Your task to perform on an android device: find snoozed emails in the gmail app Image 0: 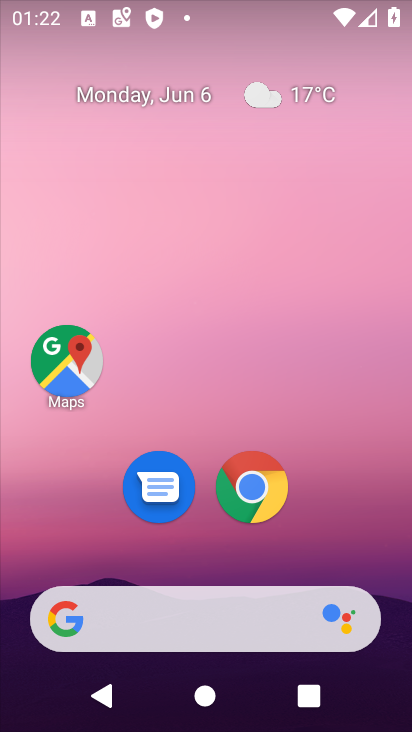
Step 0: drag from (399, 623) to (334, 57)
Your task to perform on an android device: find snoozed emails in the gmail app Image 1: 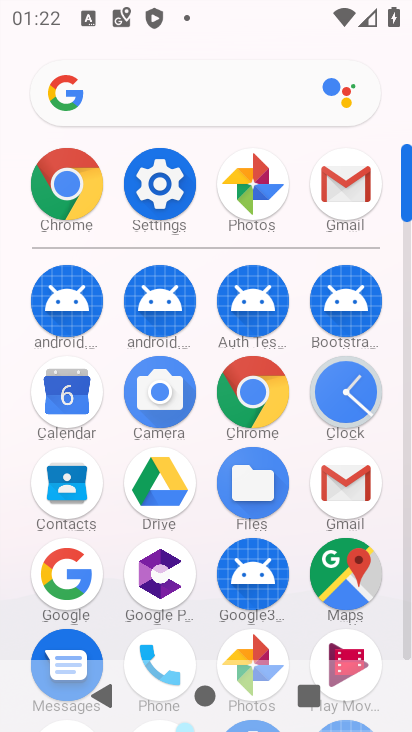
Step 1: click (408, 638)
Your task to perform on an android device: find snoozed emails in the gmail app Image 2: 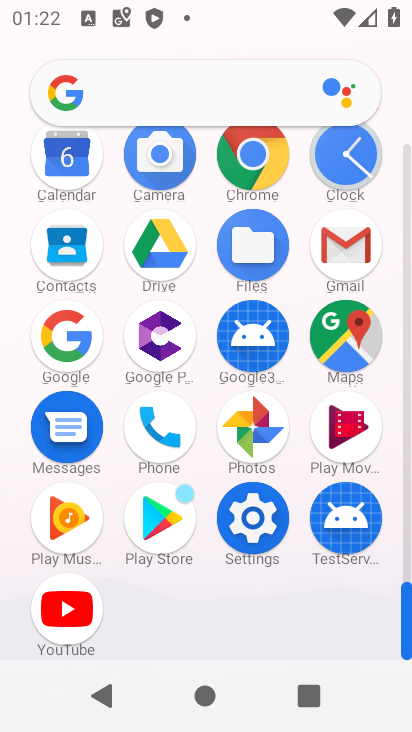
Step 2: click (341, 247)
Your task to perform on an android device: find snoozed emails in the gmail app Image 3: 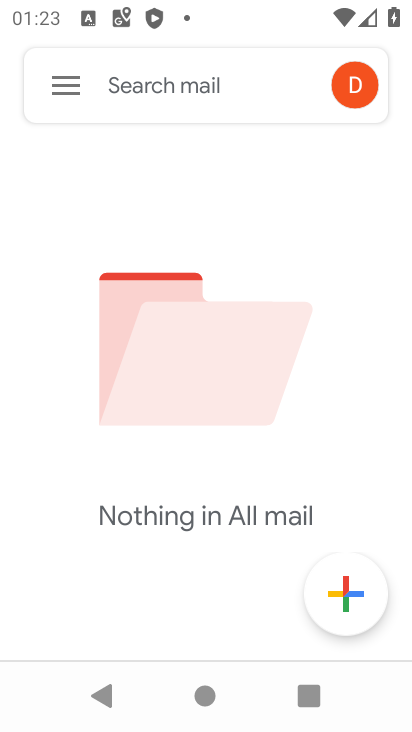
Step 3: click (60, 94)
Your task to perform on an android device: find snoozed emails in the gmail app Image 4: 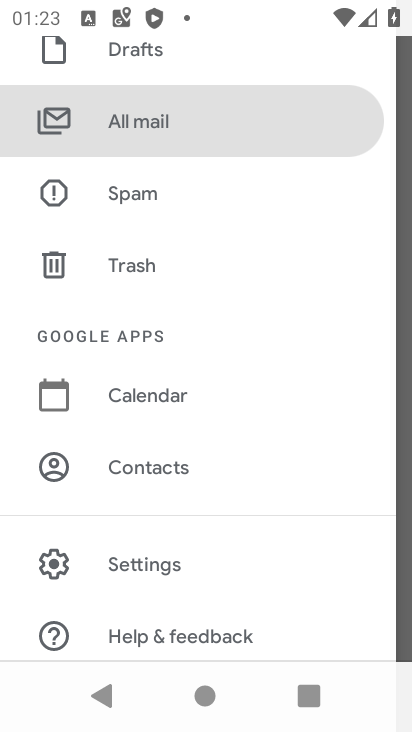
Step 4: drag from (242, 149) to (258, 467)
Your task to perform on an android device: find snoozed emails in the gmail app Image 5: 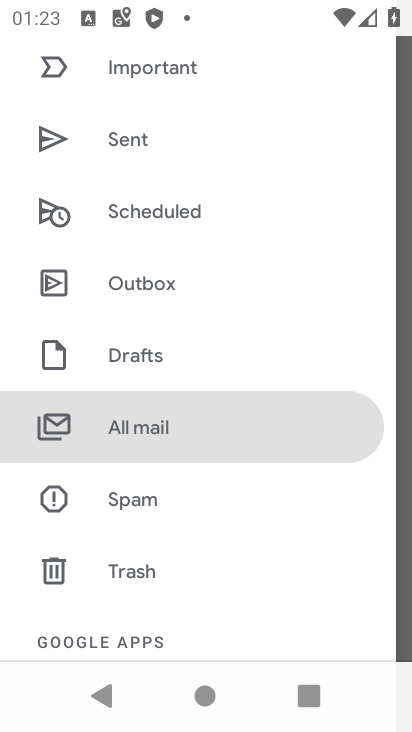
Step 5: drag from (278, 207) to (279, 531)
Your task to perform on an android device: find snoozed emails in the gmail app Image 6: 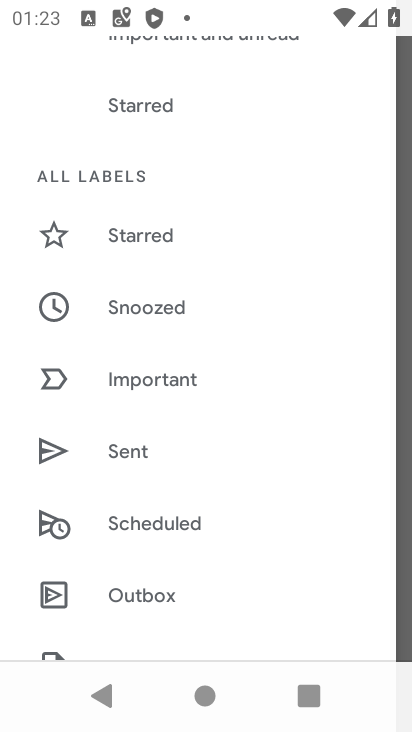
Step 6: click (134, 302)
Your task to perform on an android device: find snoozed emails in the gmail app Image 7: 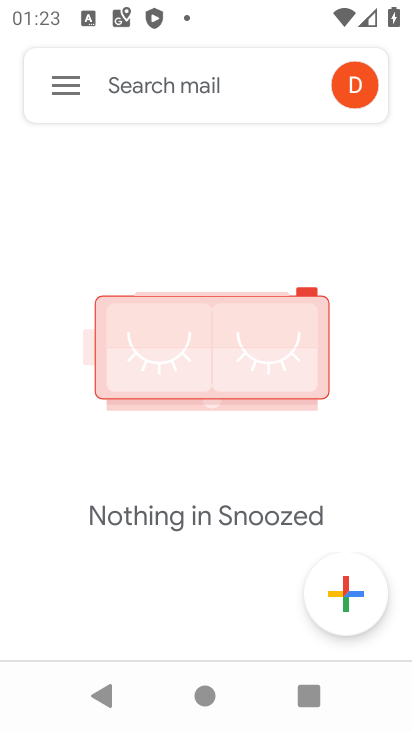
Step 7: task complete